Your task to perform on an android device: Open Amazon Image 0: 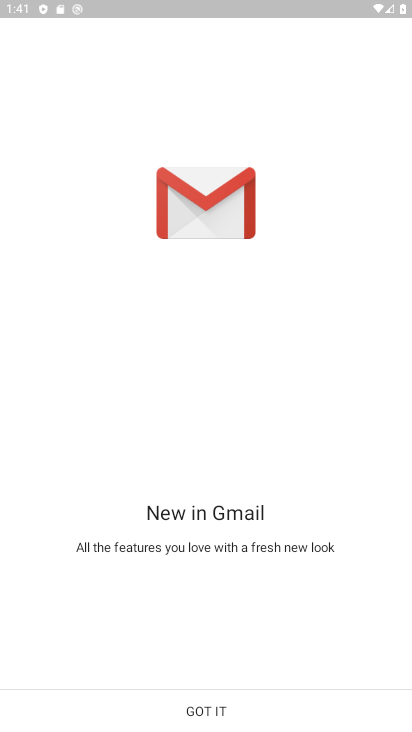
Step 0: press home button
Your task to perform on an android device: Open Amazon Image 1: 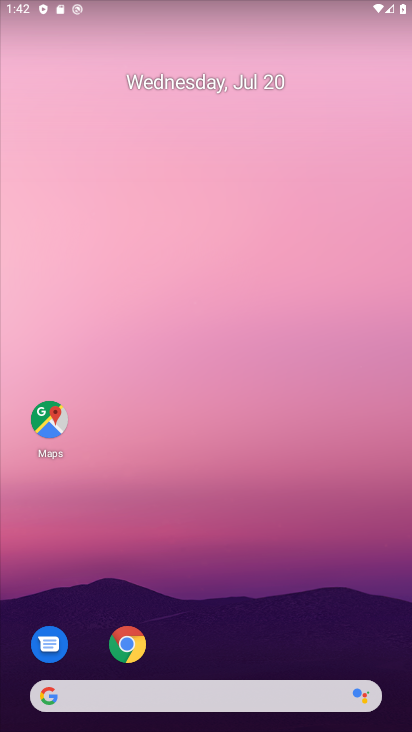
Step 1: click (132, 641)
Your task to perform on an android device: Open Amazon Image 2: 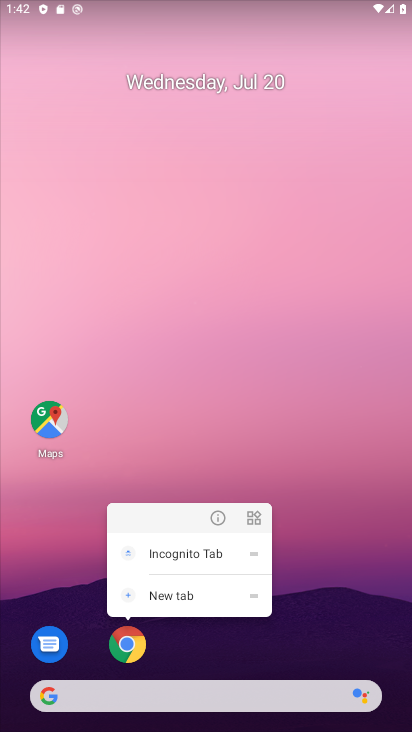
Step 2: click (137, 653)
Your task to perform on an android device: Open Amazon Image 3: 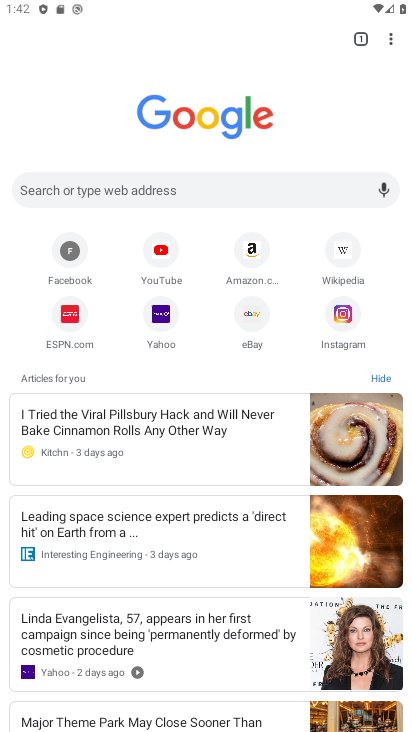
Step 3: click (254, 273)
Your task to perform on an android device: Open Amazon Image 4: 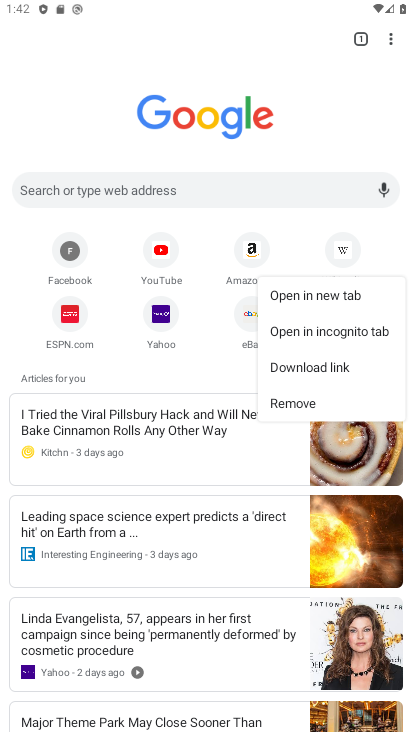
Step 4: click (241, 250)
Your task to perform on an android device: Open Amazon Image 5: 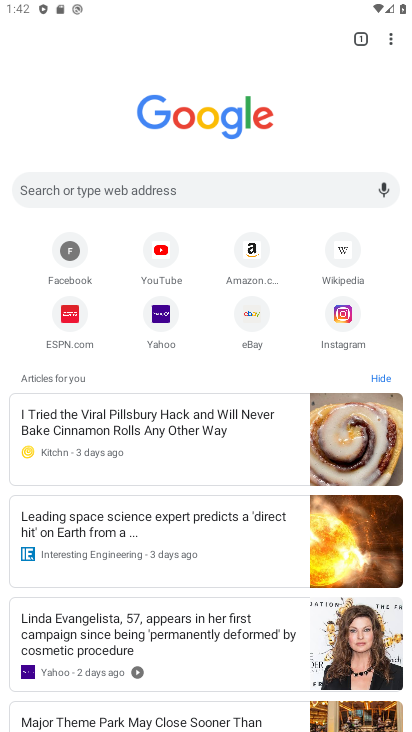
Step 5: click (249, 253)
Your task to perform on an android device: Open Amazon Image 6: 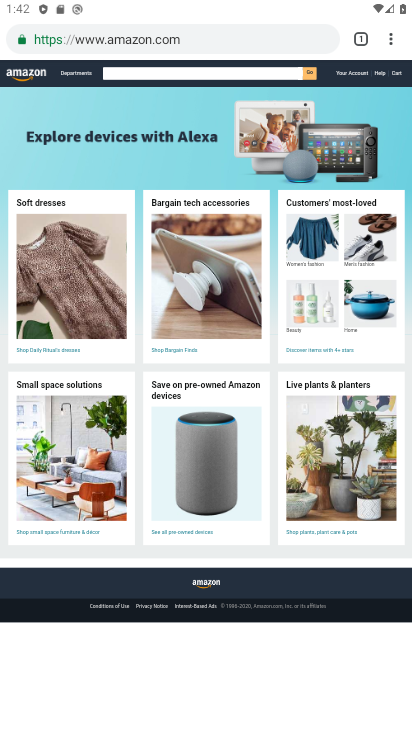
Step 6: task complete